Your task to perform on an android device: show emergency info Image 0: 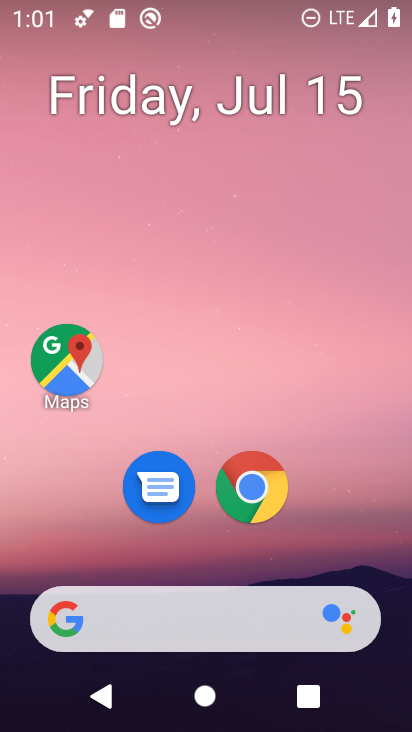
Step 0: drag from (197, 646) to (320, 154)
Your task to perform on an android device: show emergency info Image 1: 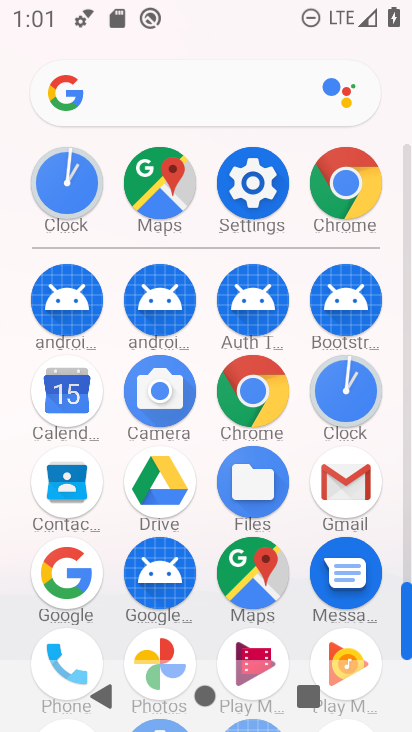
Step 1: click (277, 197)
Your task to perform on an android device: show emergency info Image 2: 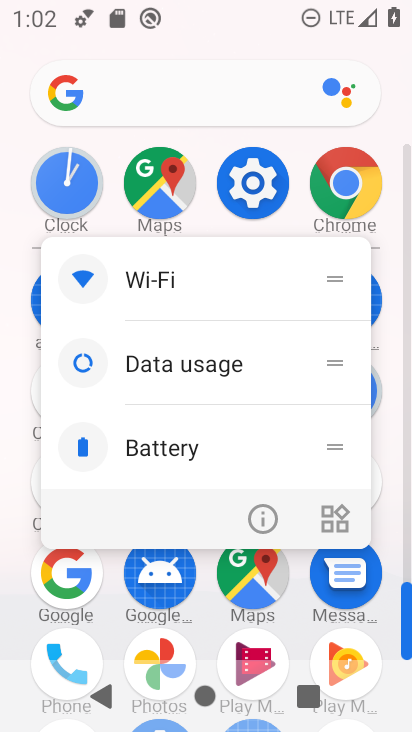
Step 2: click (277, 197)
Your task to perform on an android device: show emergency info Image 3: 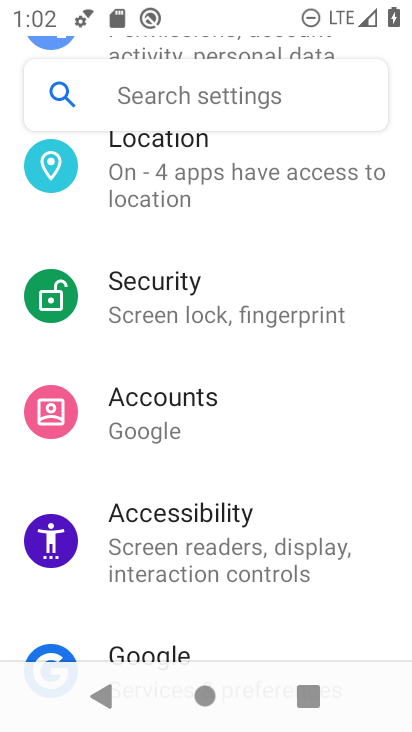
Step 3: drag from (209, 511) to (233, 226)
Your task to perform on an android device: show emergency info Image 4: 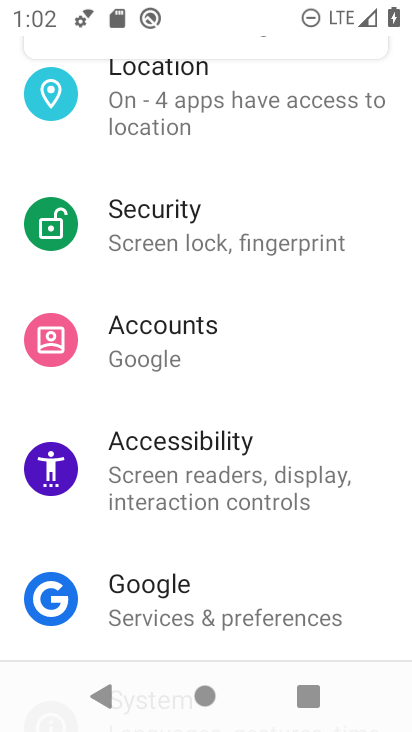
Step 4: drag from (237, 525) to (320, 20)
Your task to perform on an android device: show emergency info Image 5: 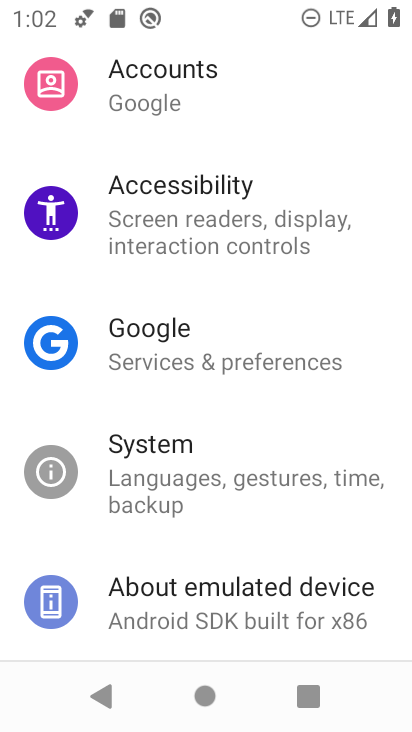
Step 5: click (221, 588)
Your task to perform on an android device: show emergency info Image 6: 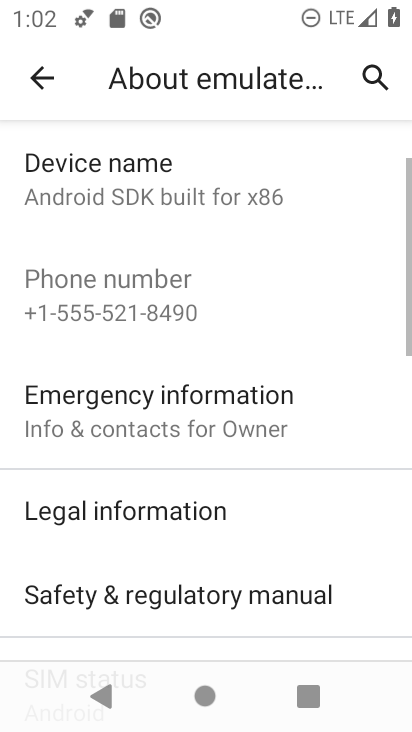
Step 6: click (232, 417)
Your task to perform on an android device: show emergency info Image 7: 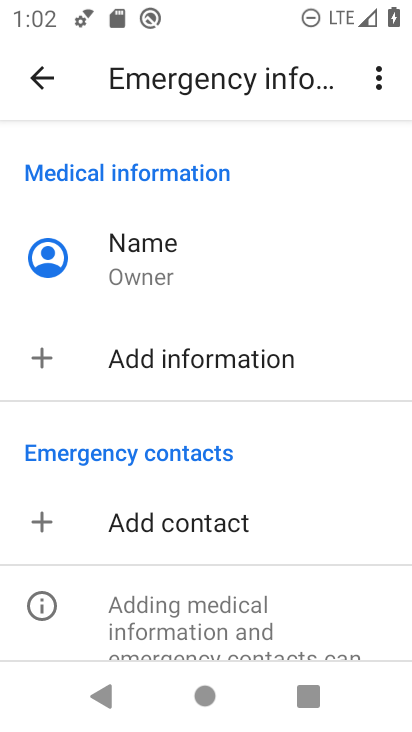
Step 7: task complete